Your task to perform on an android device: Open the Play Movies app and select the watchlist tab. Image 0: 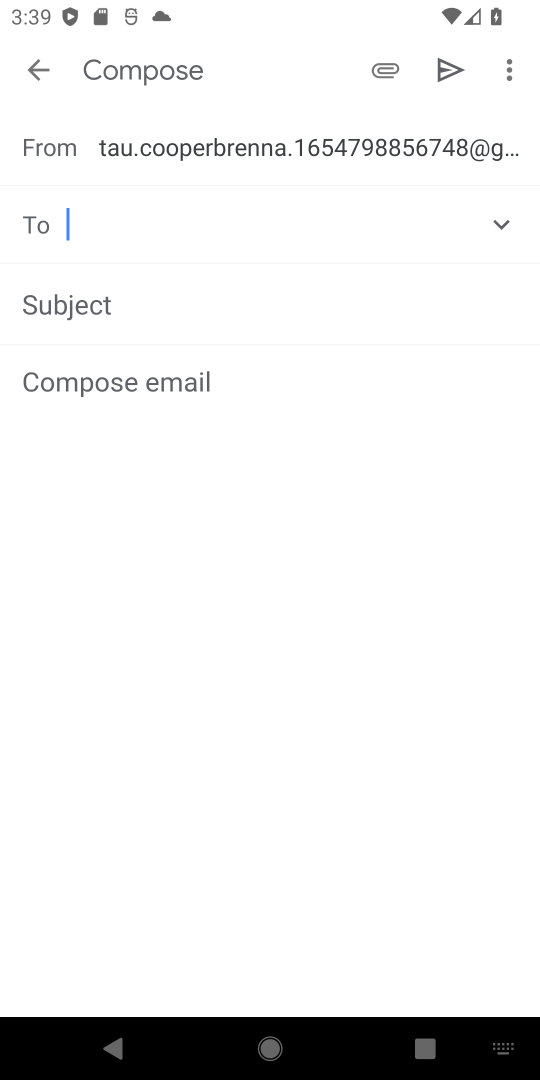
Step 0: press home button
Your task to perform on an android device: Open the Play Movies app and select the watchlist tab. Image 1: 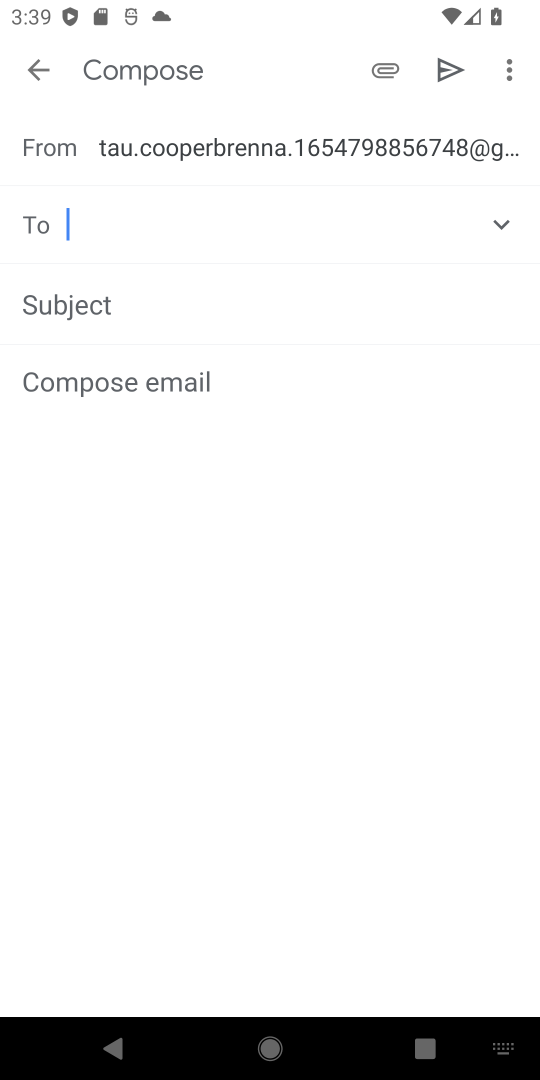
Step 1: task complete